Your task to perform on an android device: open the mobile data screen to see how much data has been used Image 0: 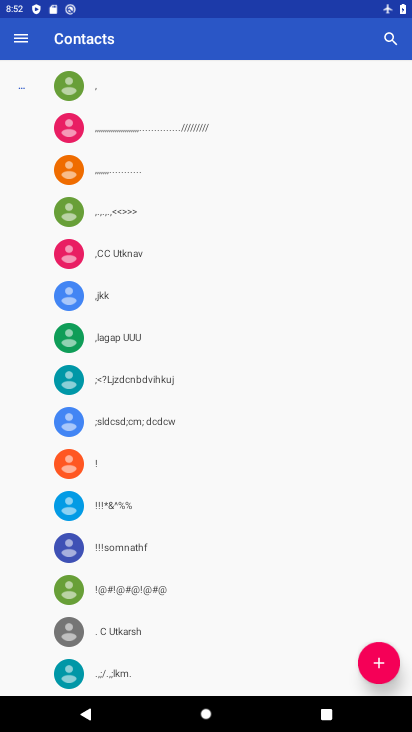
Step 0: press home button
Your task to perform on an android device: open the mobile data screen to see how much data has been used Image 1: 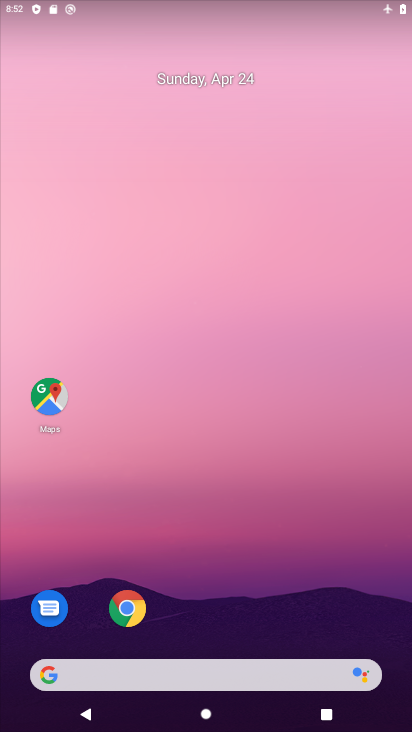
Step 1: drag from (201, 597) to (202, 114)
Your task to perform on an android device: open the mobile data screen to see how much data has been used Image 2: 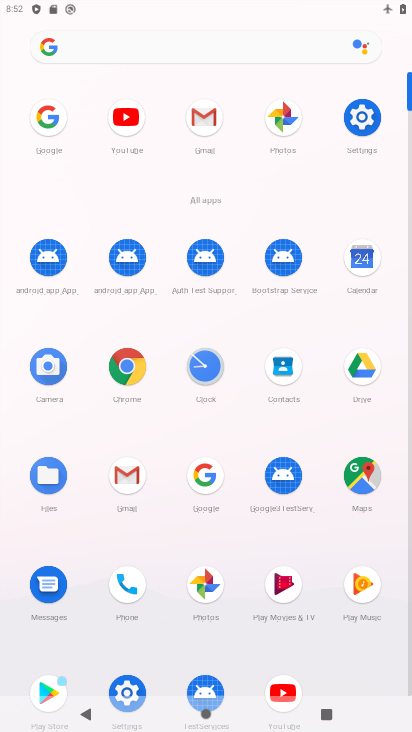
Step 2: click (363, 125)
Your task to perform on an android device: open the mobile data screen to see how much data has been used Image 3: 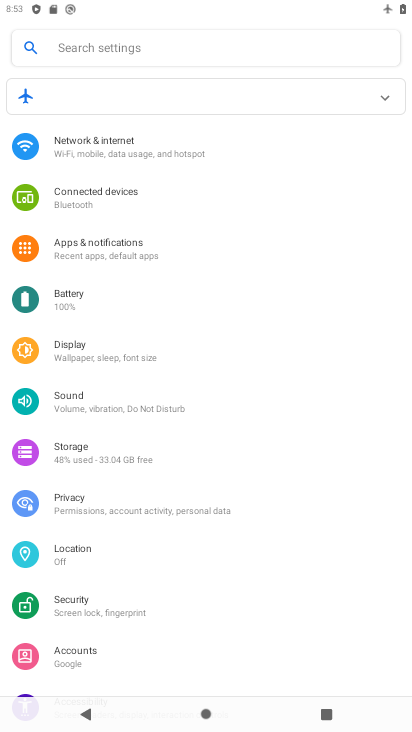
Step 3: click (134, 156)
Your task to perform on an android device: open the mobile data screen to see how much data has been used Image 4: 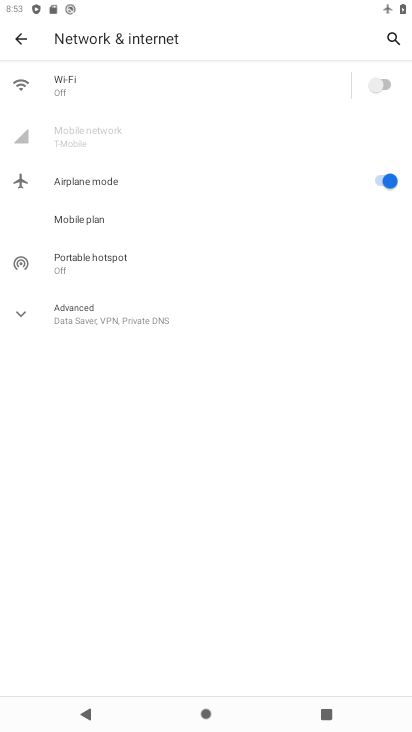
Step 4: click (129, 143)
Your task to perform on an android device: open the mobile data screen to see how much data has been used Image 5: 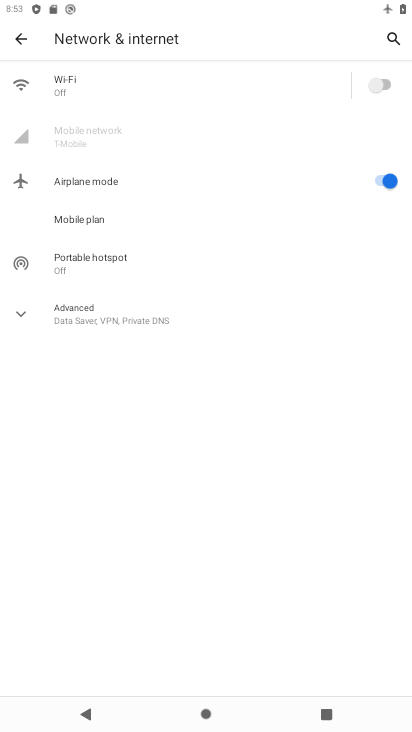
Step 5: task complete